Your task to perform on an android device: Open Chrome and go to the settings page Image 0: 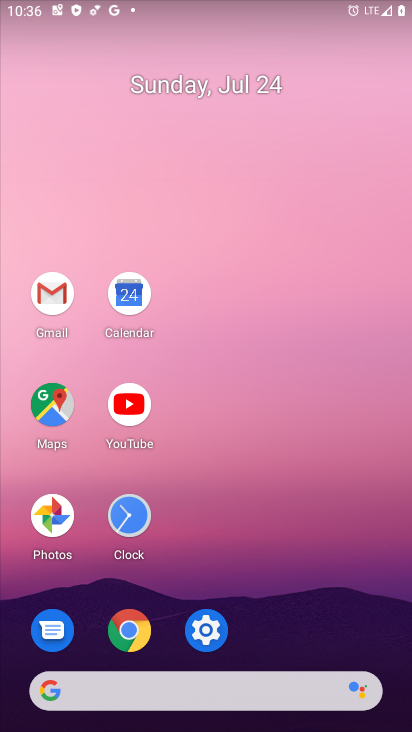
Step 0: click (133, 632)
Your task to perform on an android device: Open Chrome and go to the settings page Image 1: 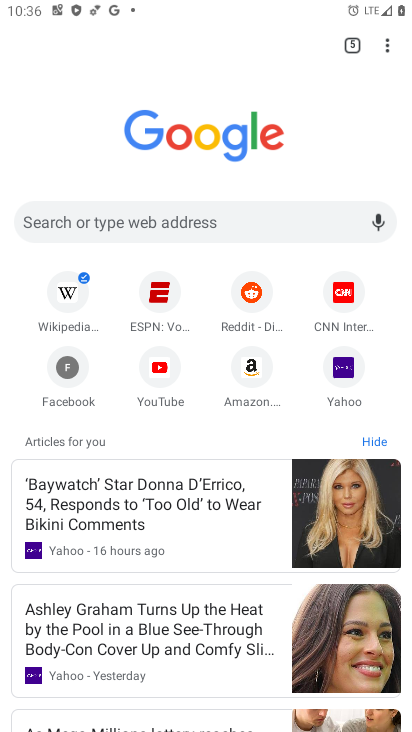
Step 1: click (387, 45)
Your task to perform on an android device: Open Chrome and go to the settings page Image 2: 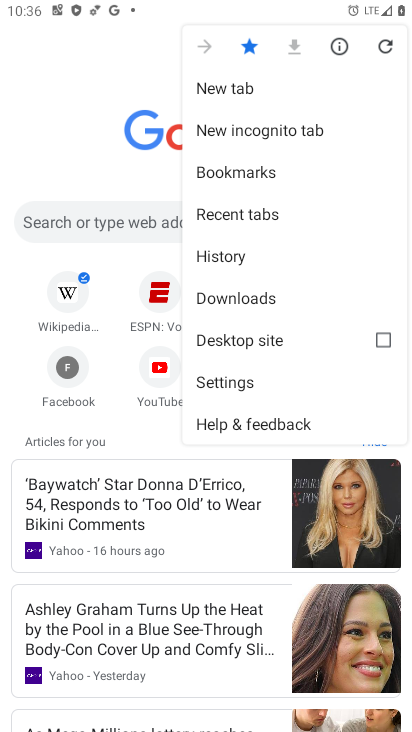
Step 2: click (237, 379)
Your task to perform on an android device: Open Chrome and go to the settings page Image 3: 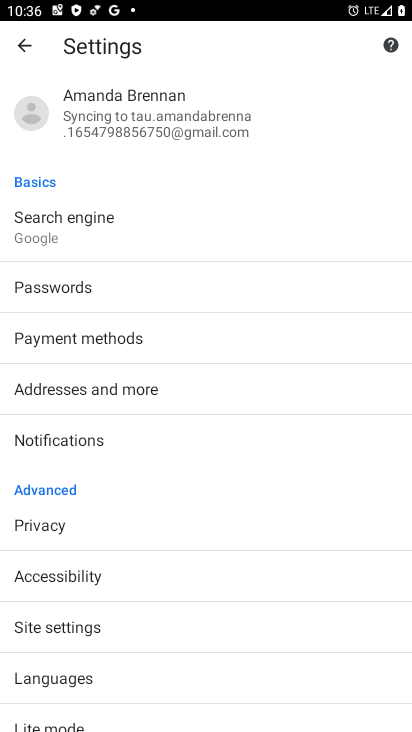
Step 3: task complete